Your task to perform on an android device: Open display settings Image 0: 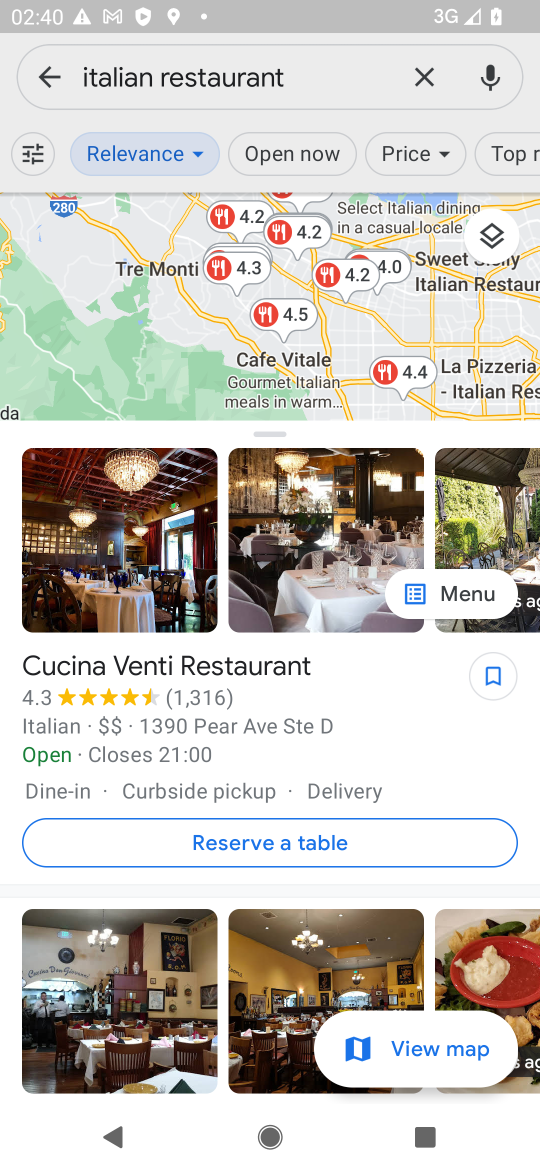
Step 0: press home button
Your task to perform on an android device: Open display settings Image 1: 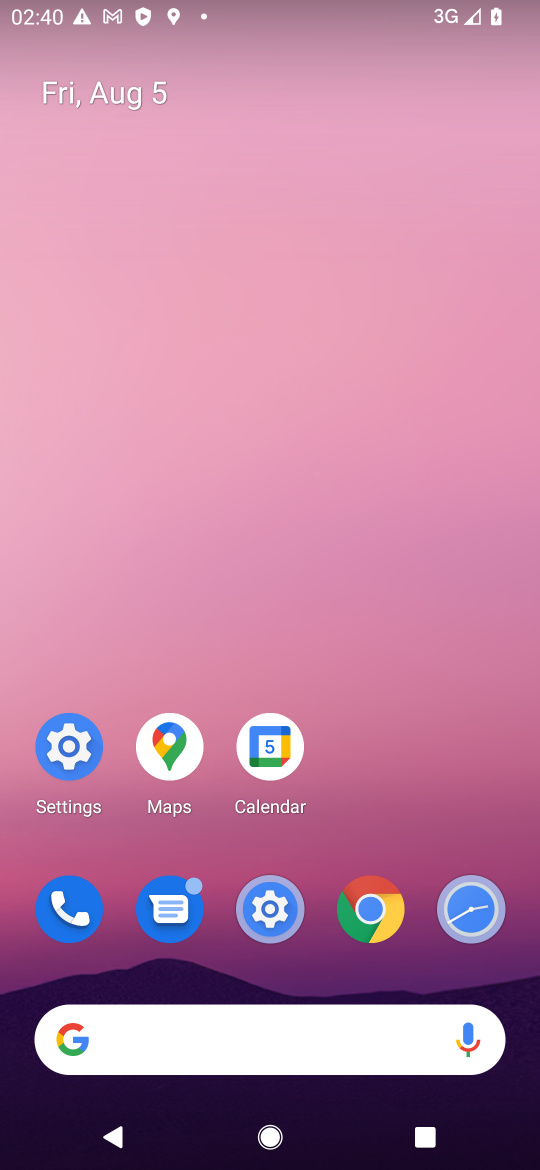
Step 1: click (71, 749)
Your task to perform on an android device: Open display settings Image 2: 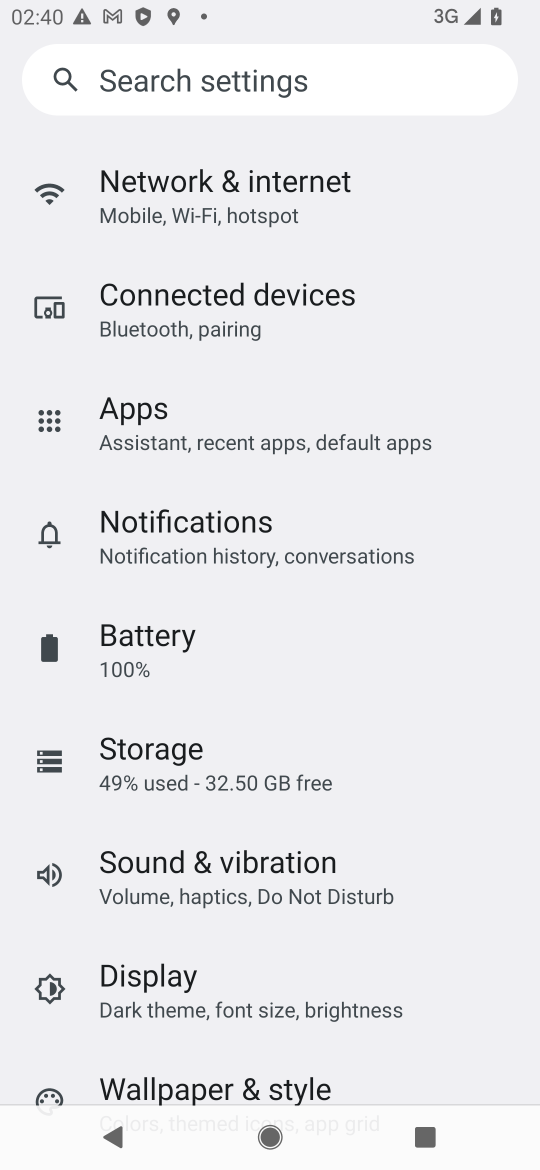
Step 2: click (152, 980)
Your task to perform on an android device: Open display settings Image 3: 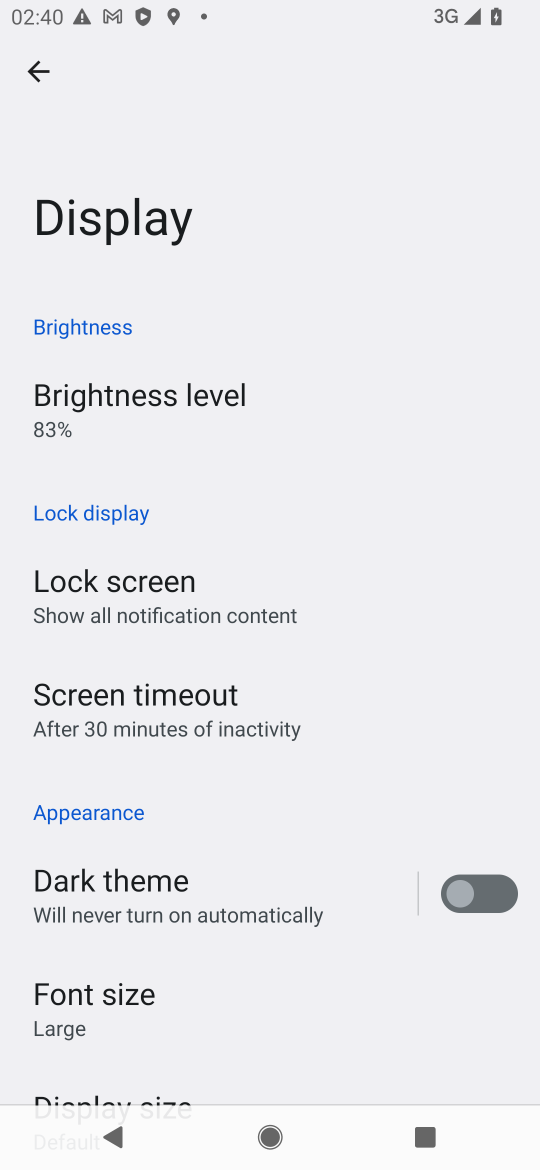
Step 3: task complete